Your task to perform on an android device: turn on location history Image 0: 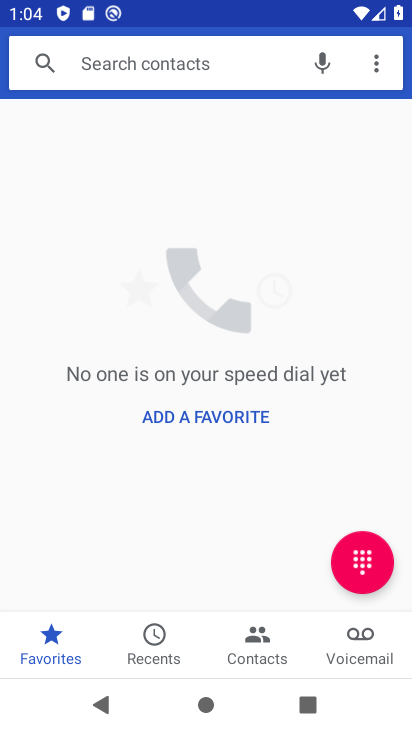
Step 0: press home button
Your task to perform on an android device: turn on location history Image 1: 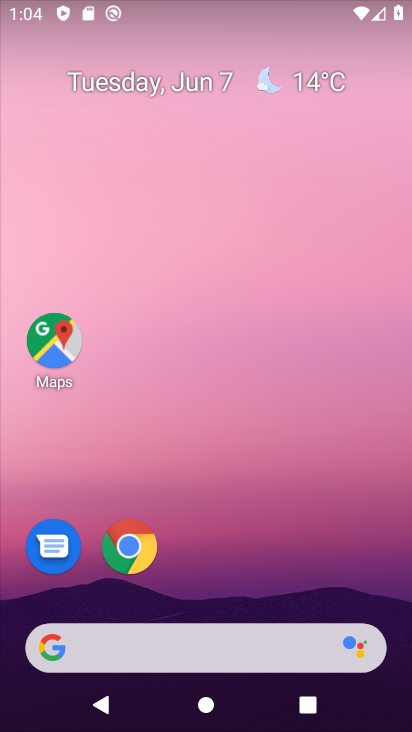
Step 1: drag from (303, 556) to (300, 128)
Your task to perform on an android device: turn on location history Image 2: 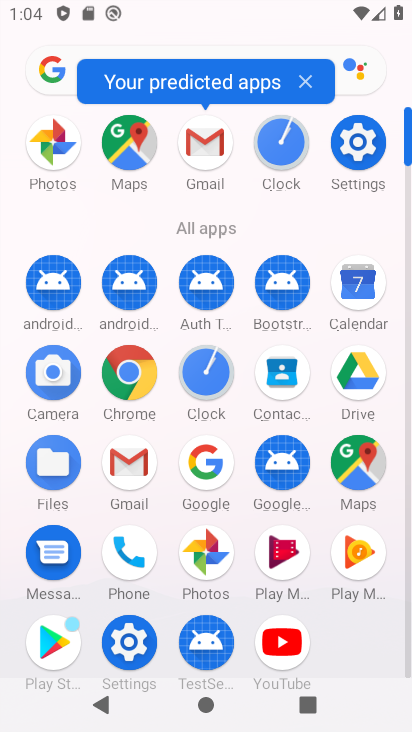
Step 2: click (369, 155)
Your task to perform on an android device: turn on location history Image 3: 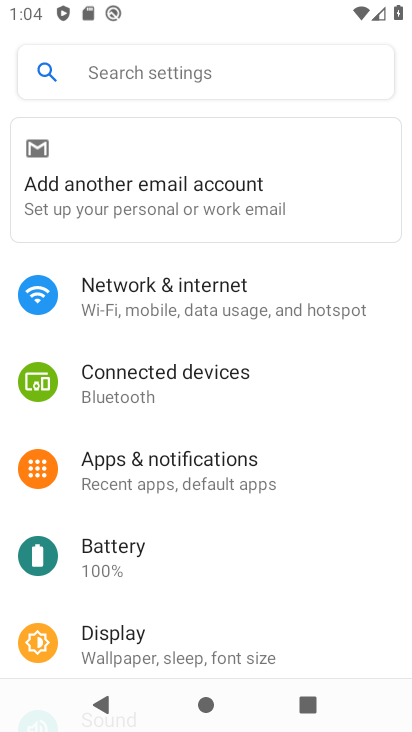
Step 3: drag from (366, 664) to (327, 254)
Your task to perform on an android device: turn on location history Image 4: 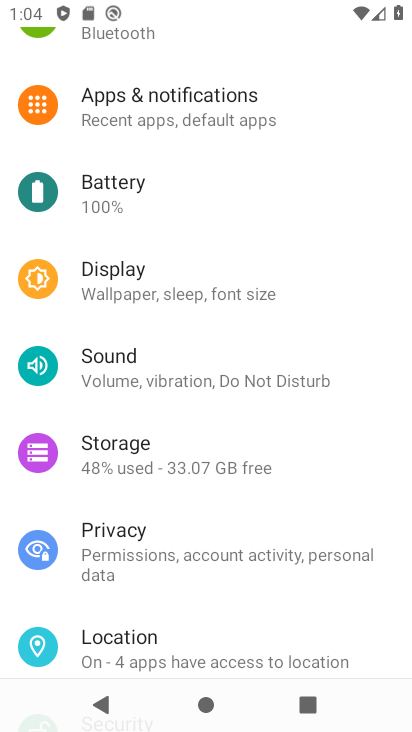
Step 4: click (170, 637)
Your task to perform on an android device: turn on location history Image 5: 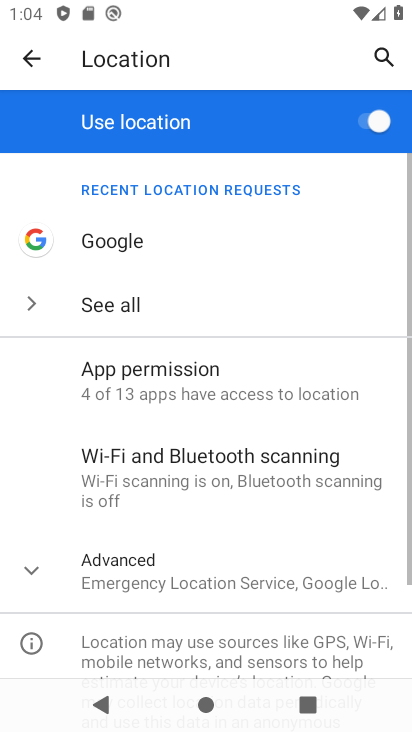
Step 5: click (29, 571)
Your task to perform on an android device: turn on location history Image 6: 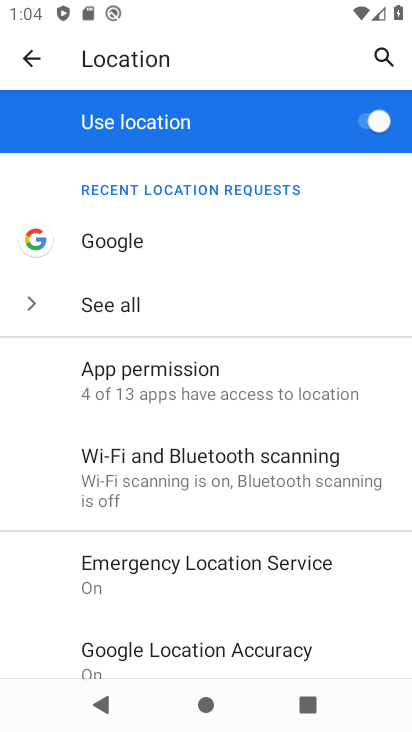
Step 6: drag from (369, 643) to (367, 376)
Your task to perform on an android device: turn on location history Image 7: 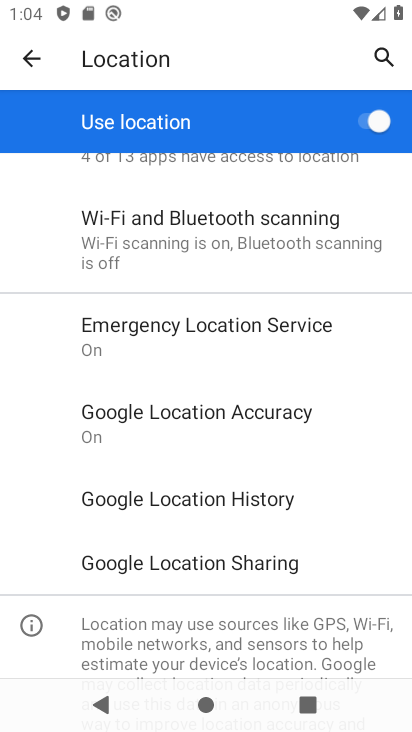
Step 7: click (211, 501)
Your task to perform on an android device: turn on location history Image 8: 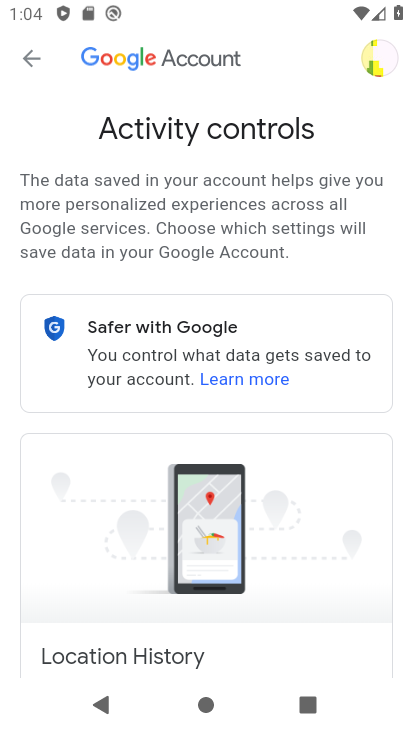
Step 8: drag from (342, 634) to (324, 244)
Your task to perform on an android device: turn on location history Image 9: 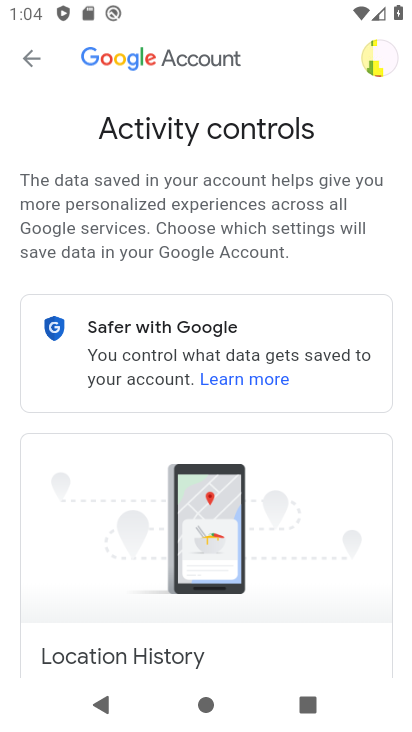
Step 9: drag from (343, 642) to (328, 414)
Your task to perform on an android device: turn on location history Image 10: 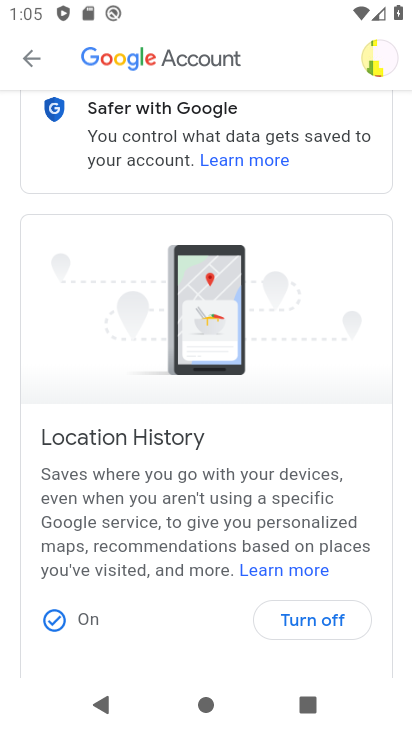
Step 10: click (301, 614)
Your task to perform on an android device: turn on location history Image 11: 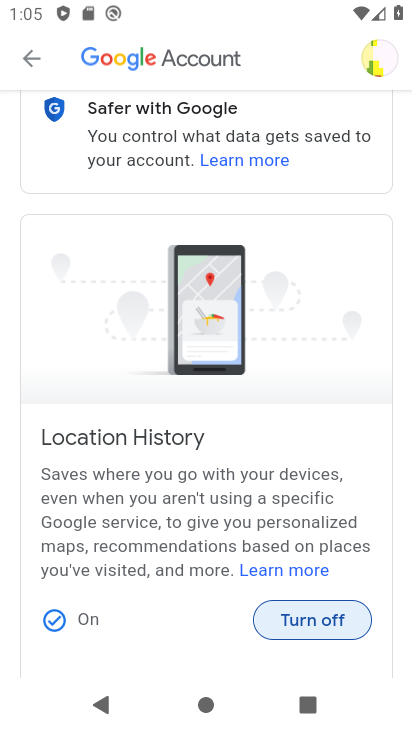
Step 11: task complete